Your task to perform on an android device: install app "Grab" Image 0: 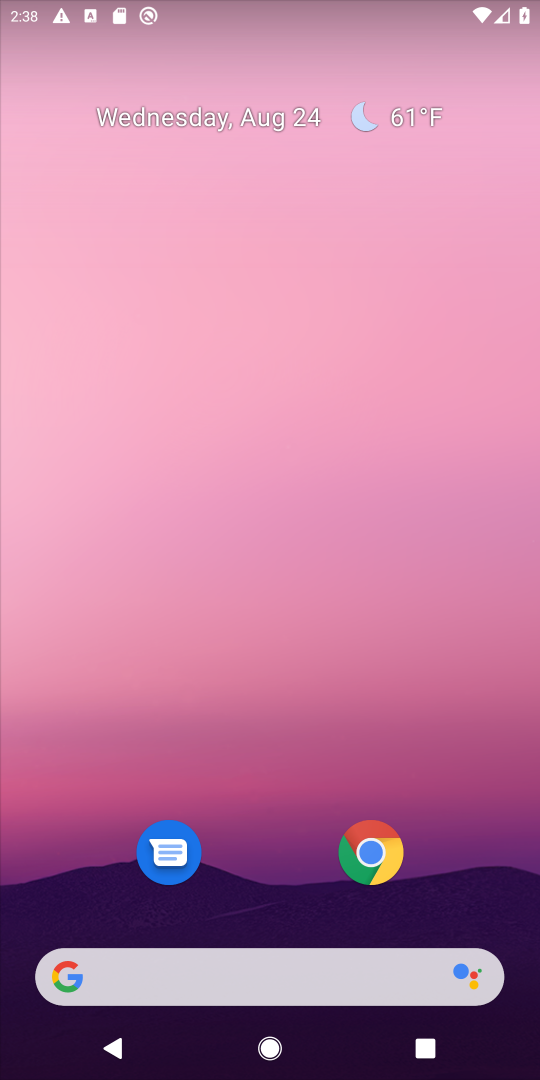
Step 0: drag from (269, 897) to (238, 21)
Your task to perform on an android device: install app "Grab" Image 1: 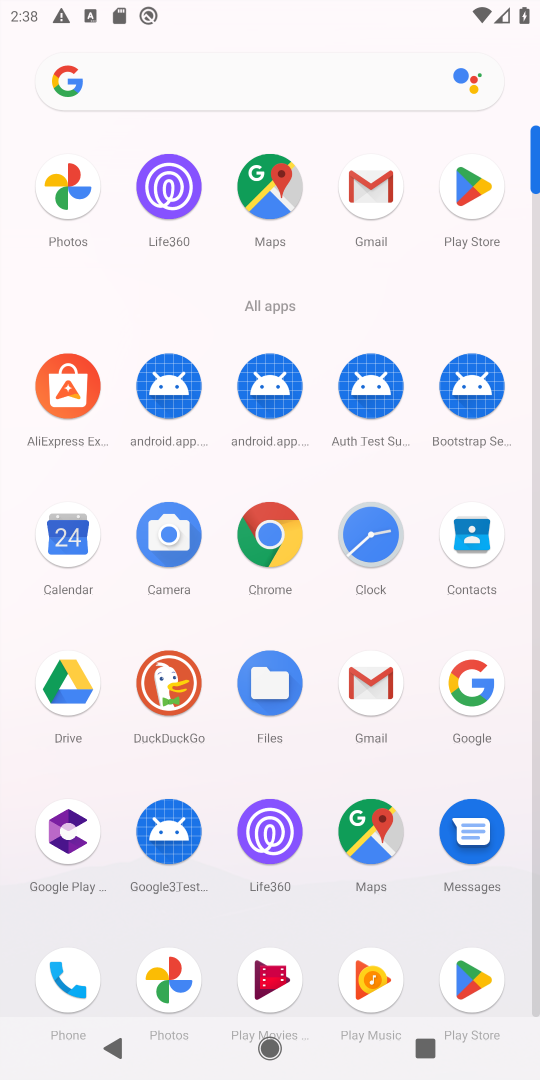
Step 1: click (474, 178)
Your task to perform on an android device: install app "Grab" Image 2: 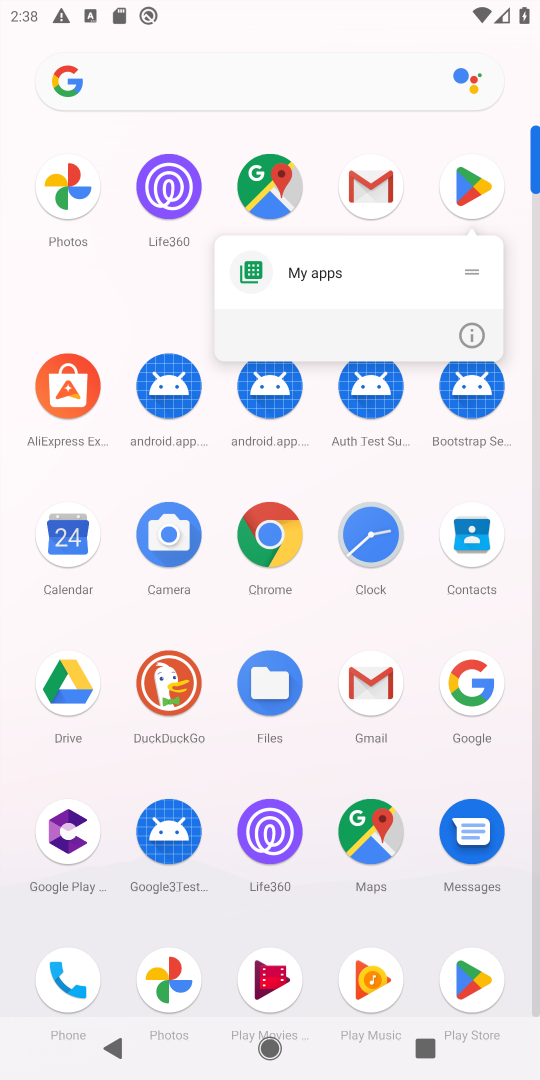
Step 2: click (473, 176)
Your task to perform on an android device: install app "Grab" Image 3: 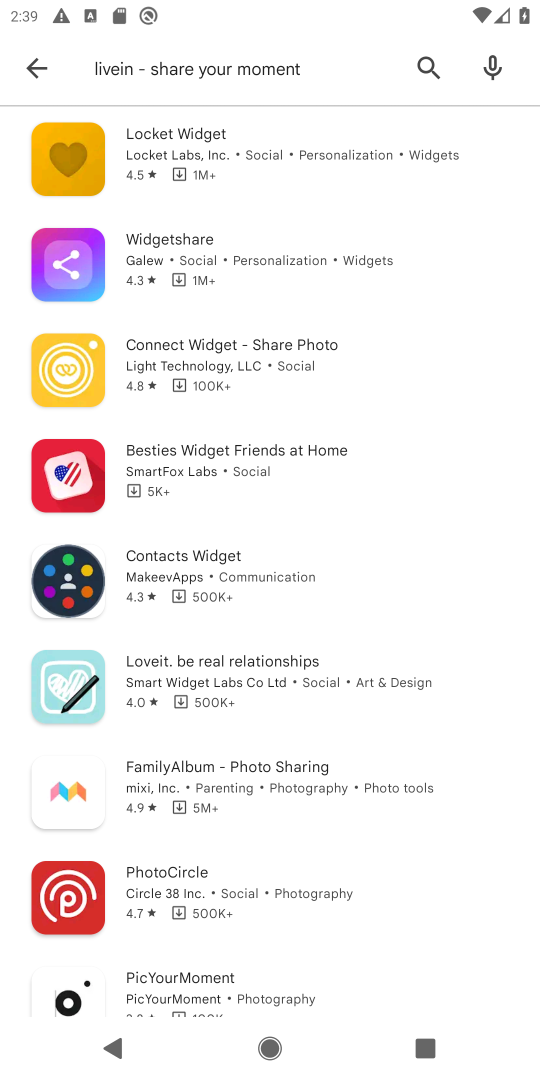
Step 3: click (420, 68)
Your task to perform on an android device: install app "Grab" Image 4: 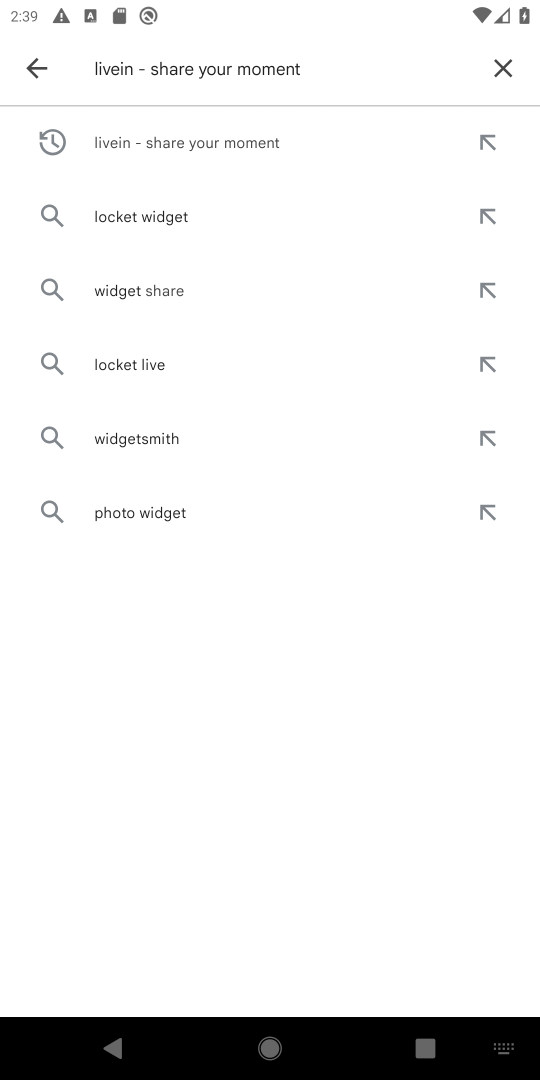
Step 4: click (496, 60)
Your task to perform on an android device: install app "Grab" Image 5: 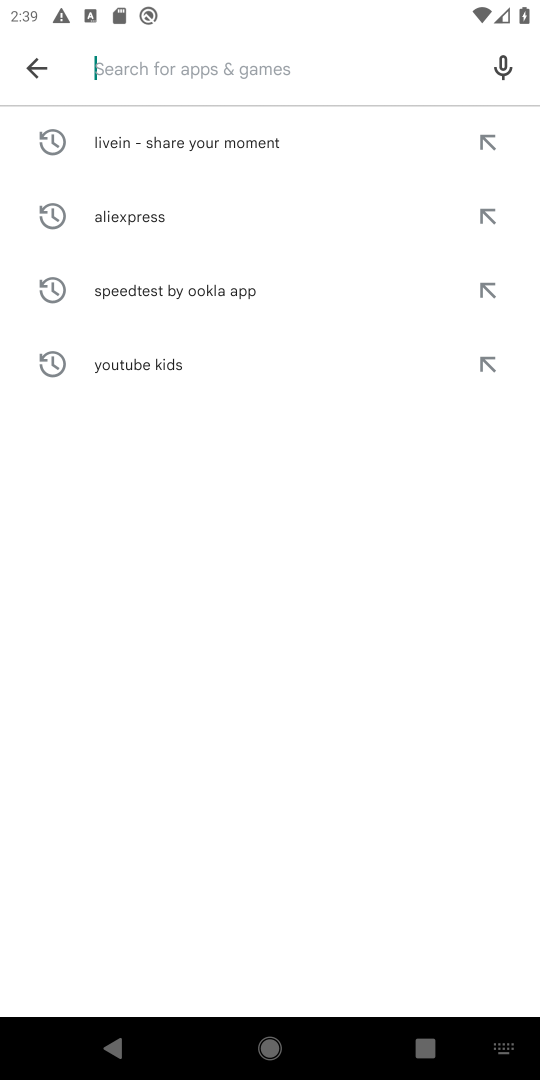
Step 5: type "Grab"
Your task to perform on an android device: install app "Grab" Image 6: 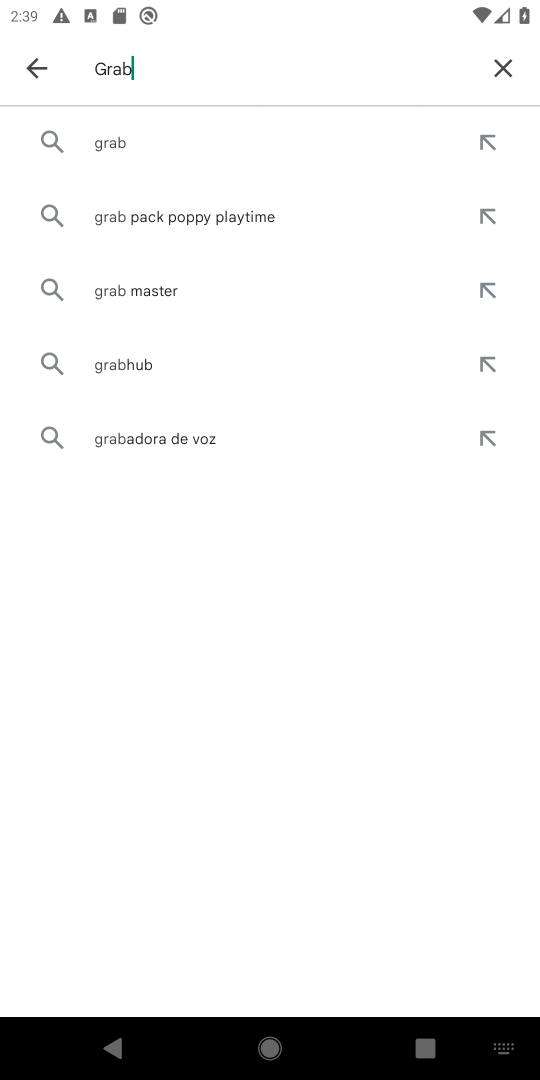
Step 6: click (119, 134)
Your task to perform on an android device: install app "Grab" Image 7: 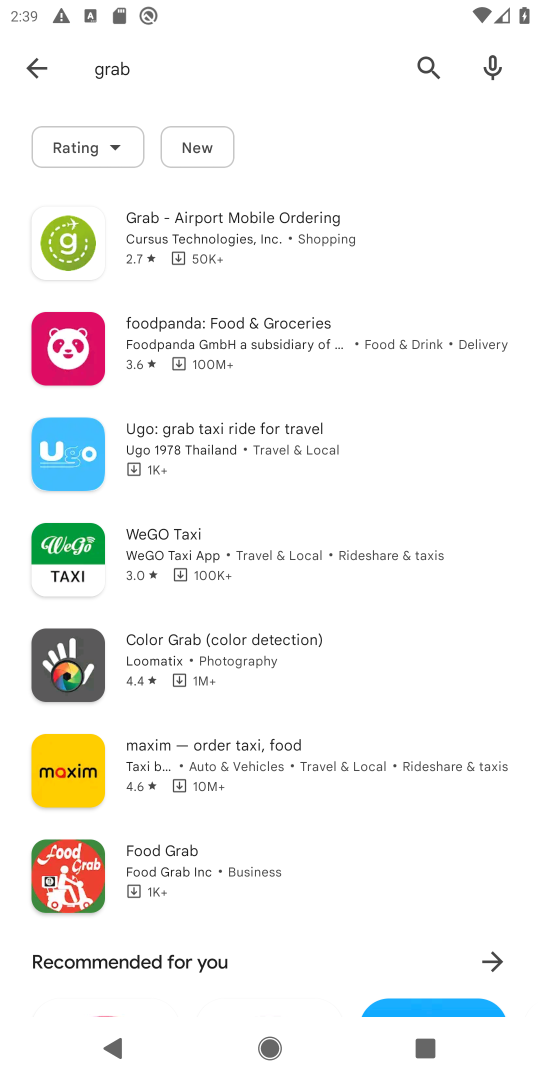
Step 7: click (199, 230)
Your task to perform on an android device: install app "Grab" Image 8: 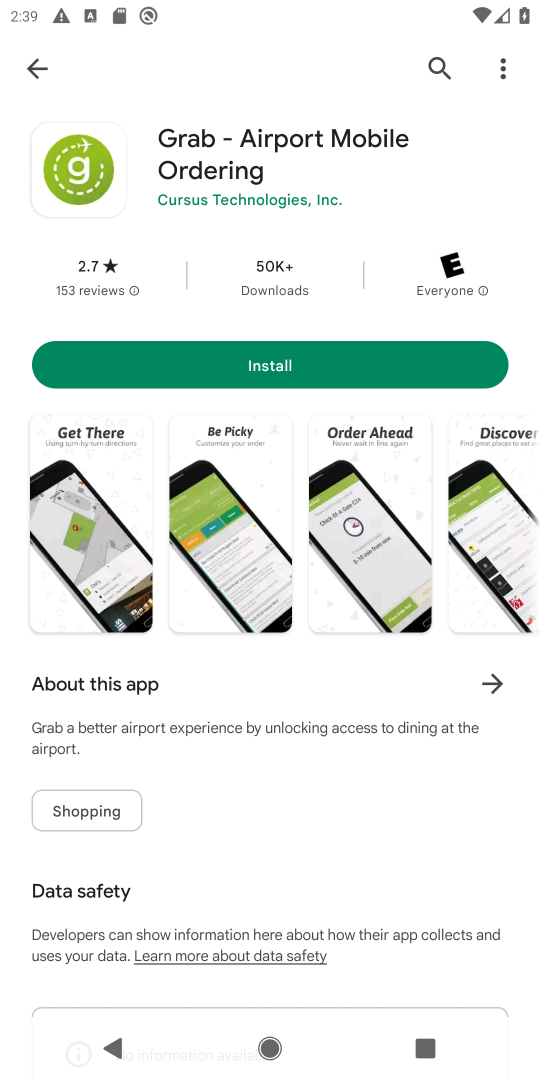
Step 8: click (279, 366)
Your task to perform on an android device: install app "Grab" Image 9: 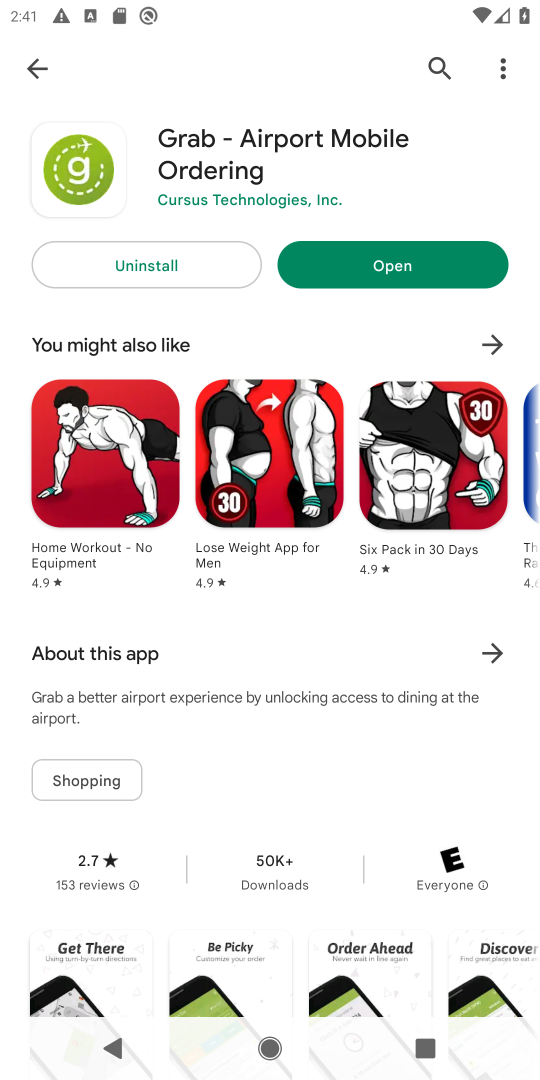
Step 9: click (422, 266)
Your task to perform on an android device: install app "Grab" Image 10: 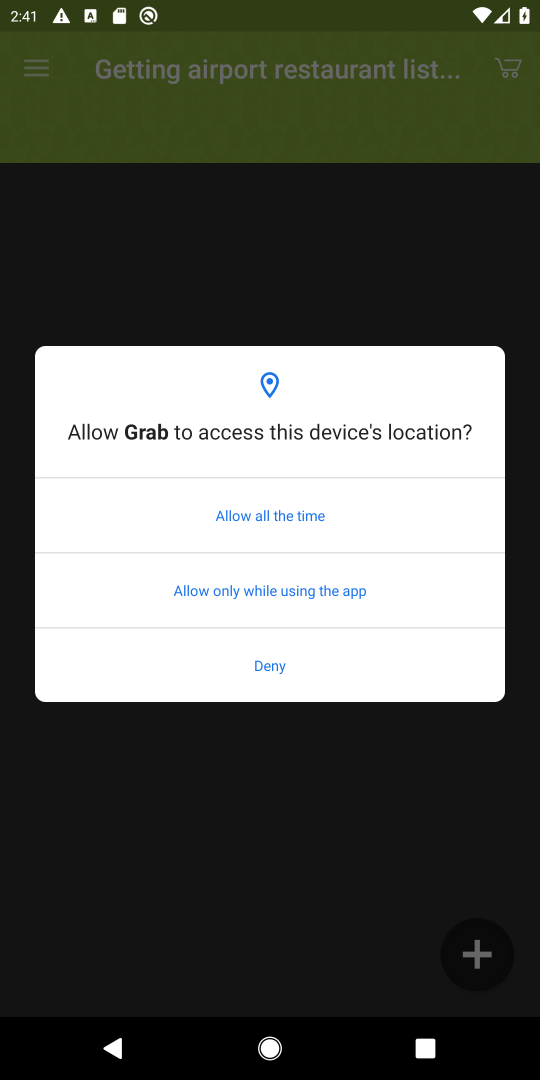
Step 10: click (284, 506)
Your task to perform on an android device: install app "Grab" Image 11: 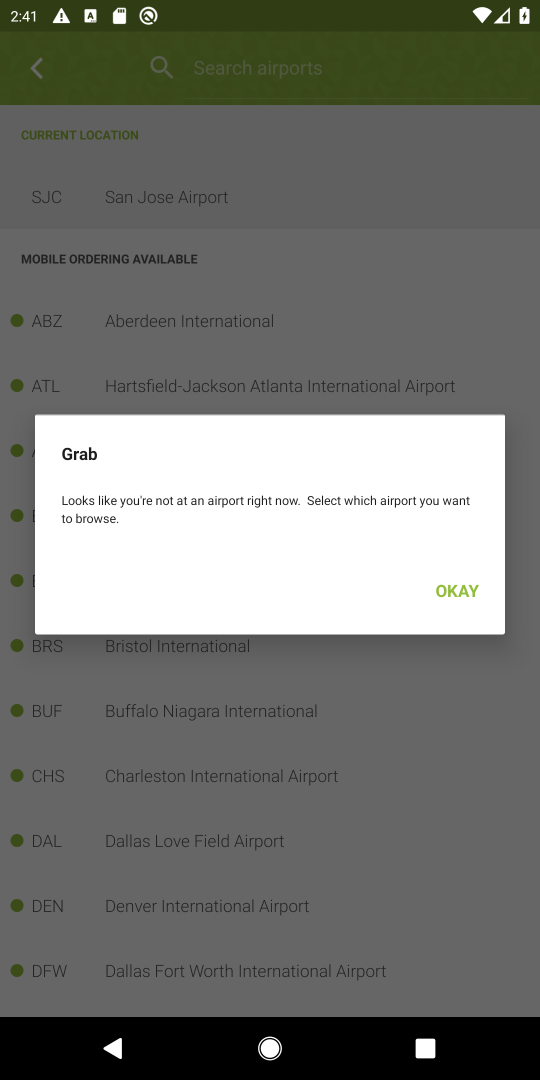
Step 11: click (449, 594)
Your task to perform on an android device: install app "Grab" Image 12: 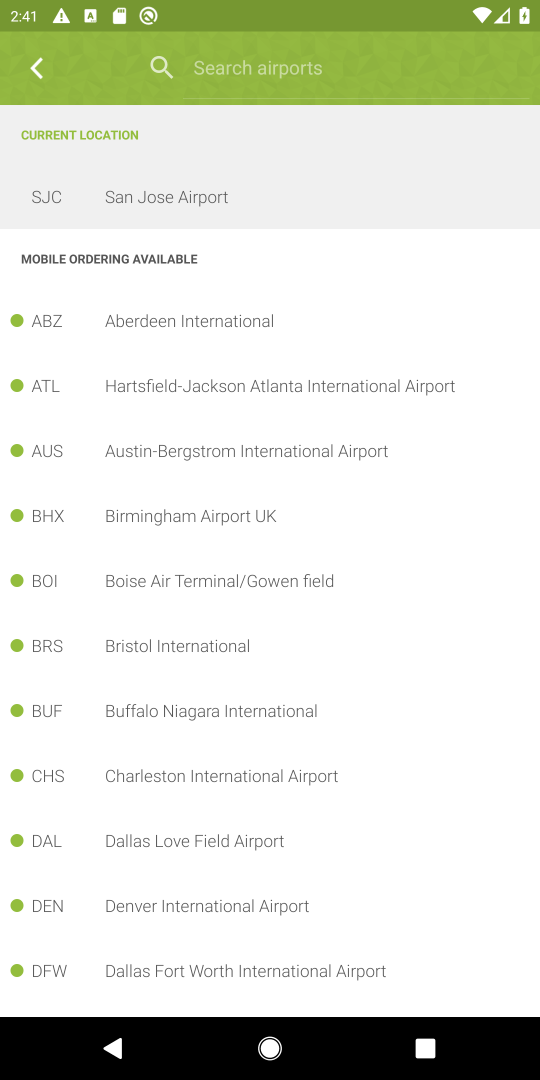
Step 12: task complete